Your task to perform on an android device: Open eBay Image 0: 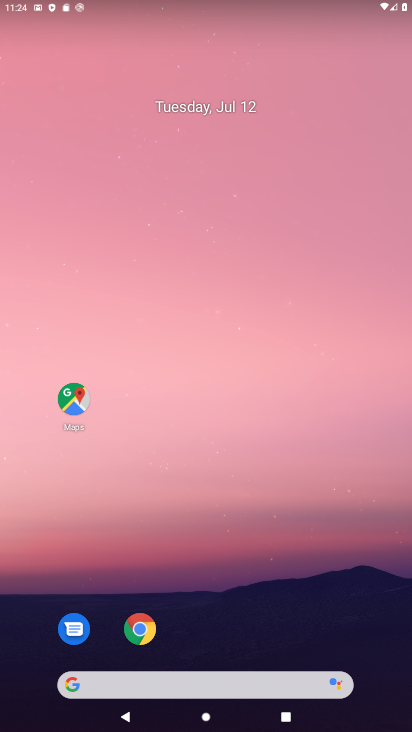
Step 0: click (145, 621)
Your task to perform on an android device: Open eBay Image 1: 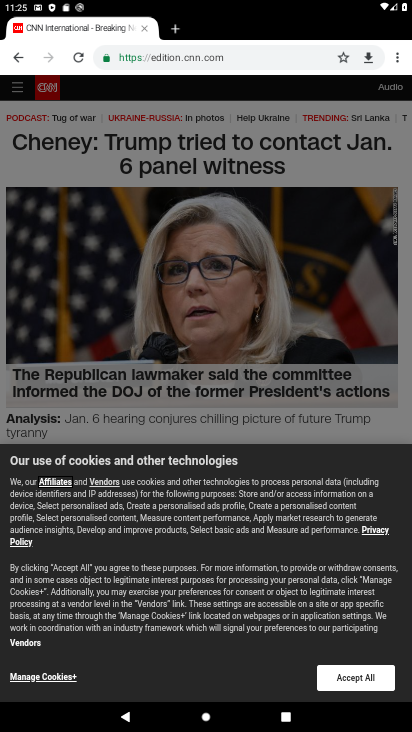
Step 1: click (180, 27)
Your task to perform on an android device: Open eBay Image 2: 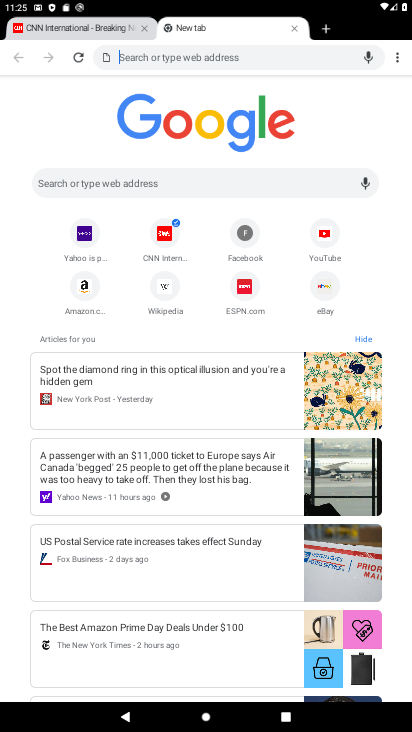
Step 2: click (328, 299)
Your task to perform on an android device: Open eBay Image 3: 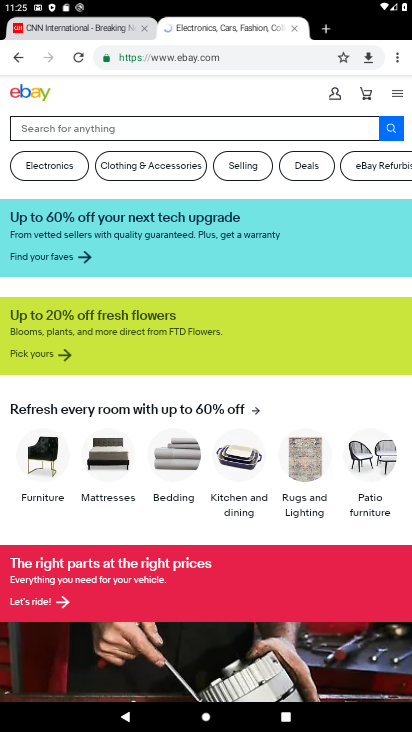
Step 3: task complete